Your task to perform on an android device: read, delete, or share a saved page in the chrome app Image 0: 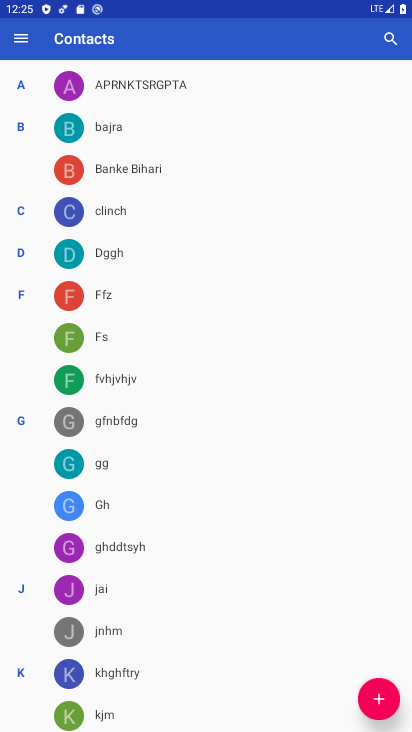
Step 0: press home button
Your task to perform on an android device: read, delete, or share a saved page in the chrome app Image 1: 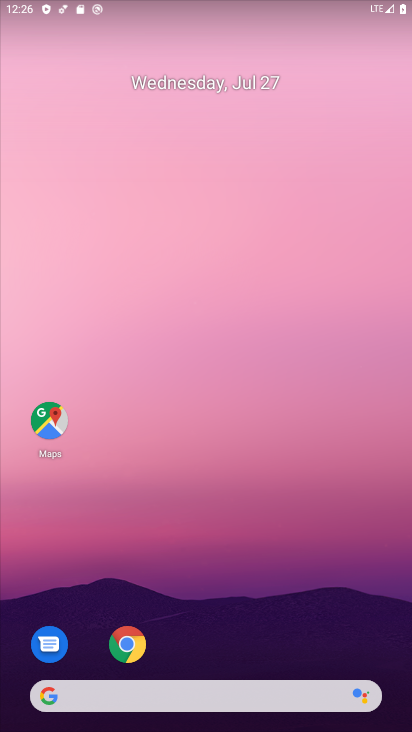
Step 1: drag from (201, 654) to (120, 4)
Your task to perform on an android device: read, delete, or share a saved page in the chrome app Image 2: 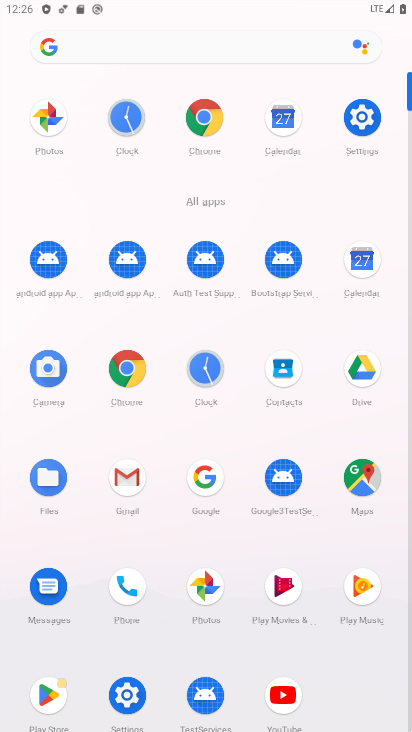
Step 2: click (126, 374)
Your task to perform on an android device: read, delete, or share a saved page in the chrome app Image 3: 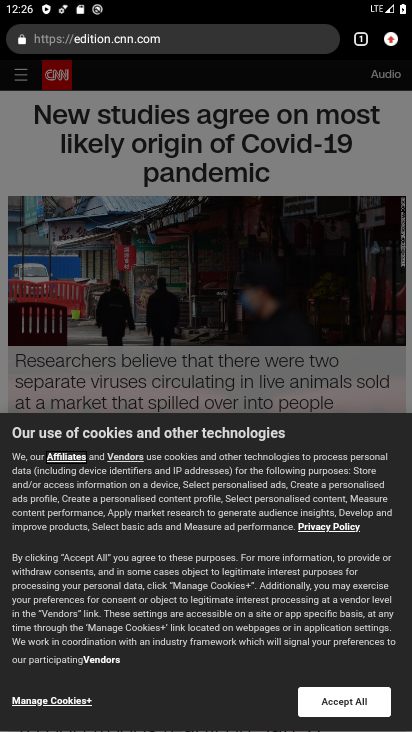
Step 3: click (386, 38)
Your task to perform on an android device: read, delete, or share a saved page in the chrome app Image 4: 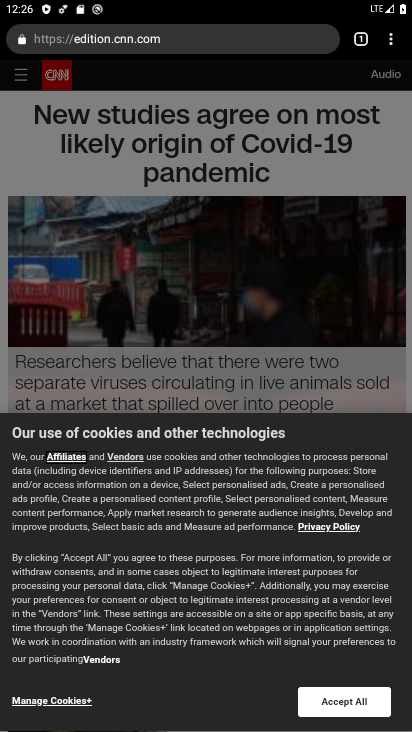
Step 4: click (390, 43)
Your task to perform on an android device: read, delete, or share a saved page in the chrome app Image 5: 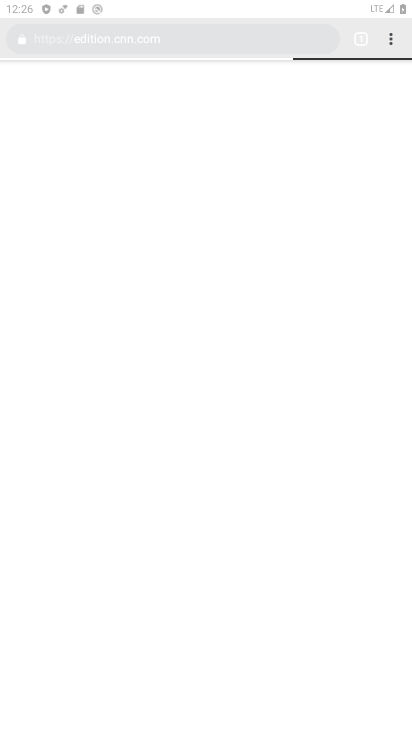
Step 5: click (394, 44)
Your task to perform on an android device: read, delete, or share a saved page in the chrome app Image 6: 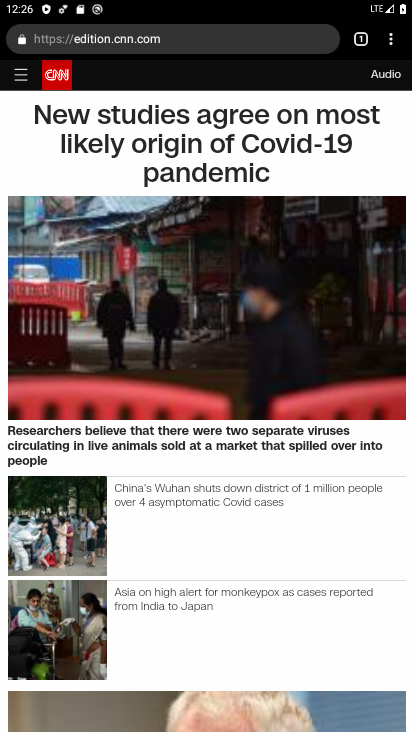
Step 6: click (396, 43)
Your task to perform on an android device: read, delete, or share a saved page in the chrome app Image 7: 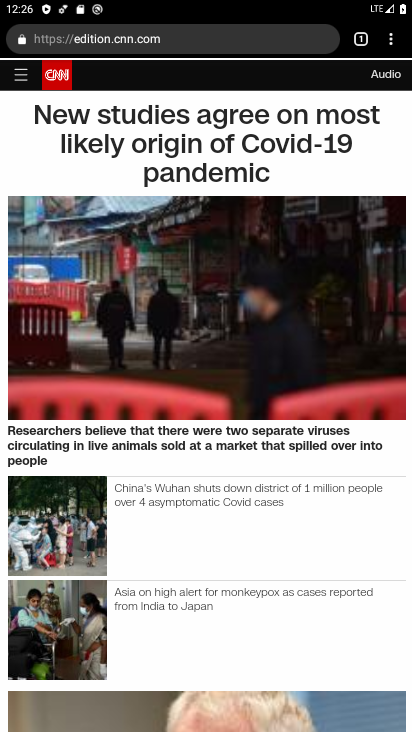
Step 7: click (400, 46)
Your task to perform on an android device: read, delete, or share a saved page in the chrome app Image 8: 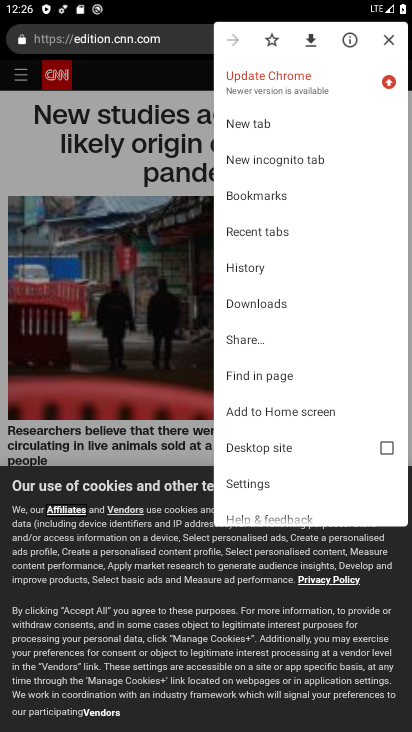
Step 8: click (248, 303)
Your task to perform on an android device: read, delete, or share a saved page in the chrome app Image 9: 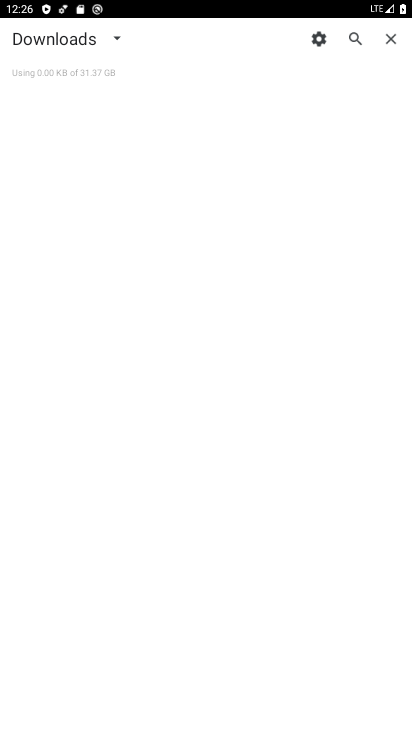
Step 9: task complete